Your task to perform on an android device: Turn off the flashlight Image 0: 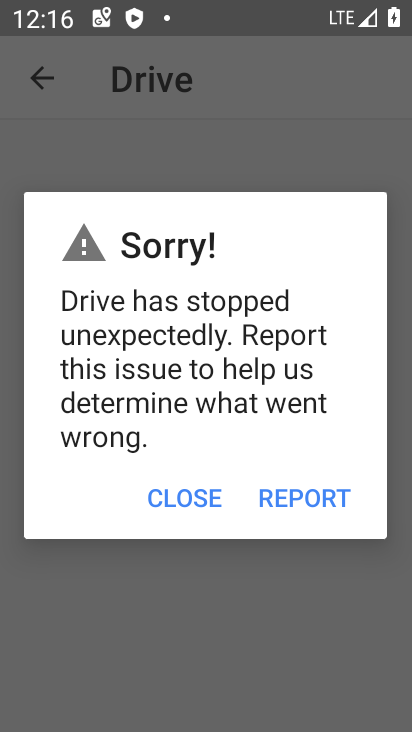
Step 0: press home button
Your task to perform on an android device: Turn off the flashlight Image 1: 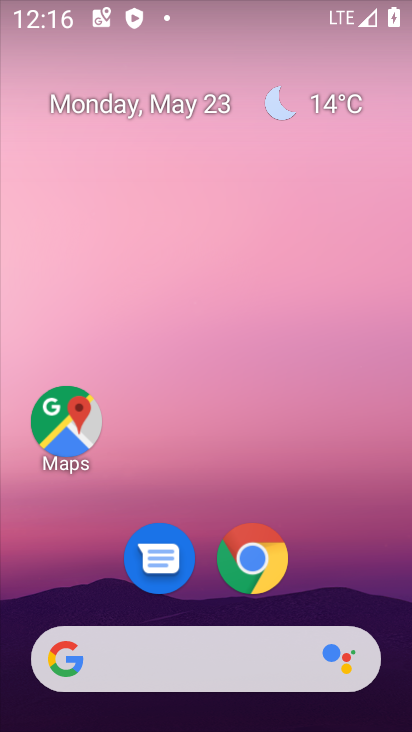
Step 1: task complete